Your task to perform on an android device: When is my next appointment? Image 0: 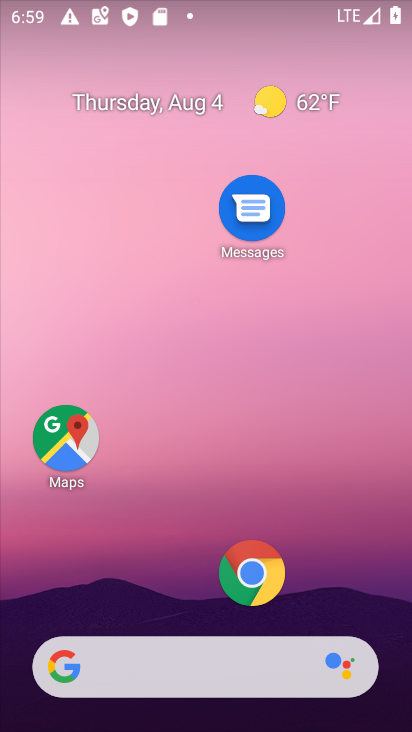
Step 0: press home button
Your task to perform on an android device: When is my next appointment? Image 1: 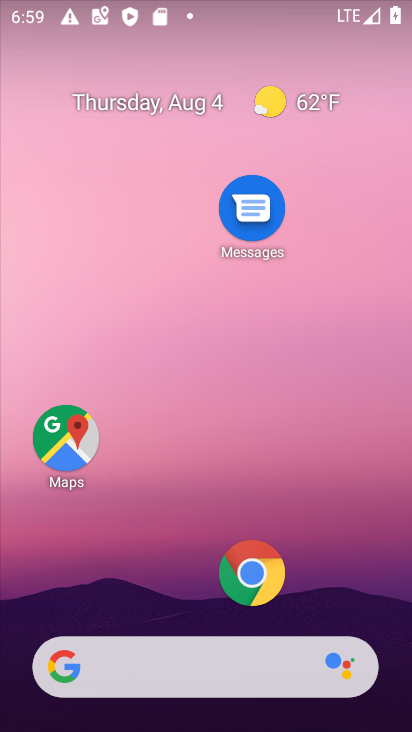
Step 1: drag from (176, 607) to (232, 149)
Your task to perform on an android device: When is my next appointment? Image 2: 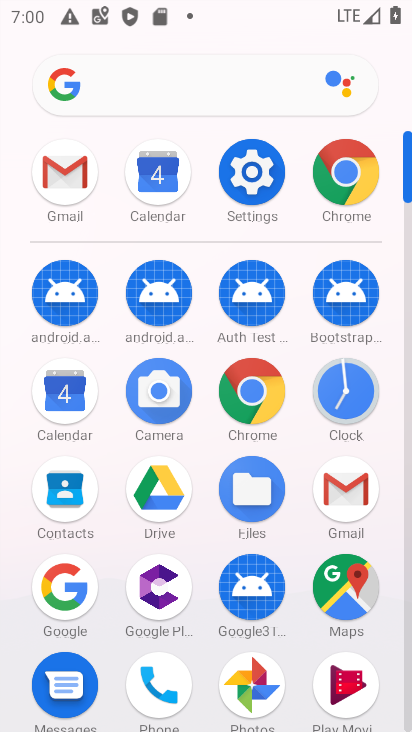
Step 2: click (157, 170)
Your task to perform on an android device: When is my next appointment? Image 3: 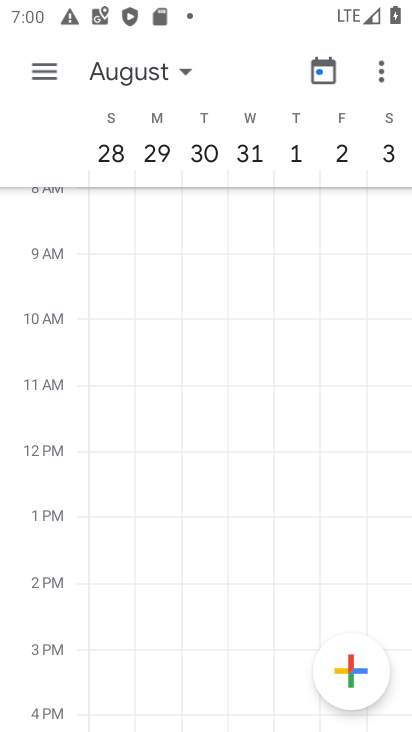
Step 3: click (190, 73)
Your task to perform on an android device: When is my next appointment? Image 4: 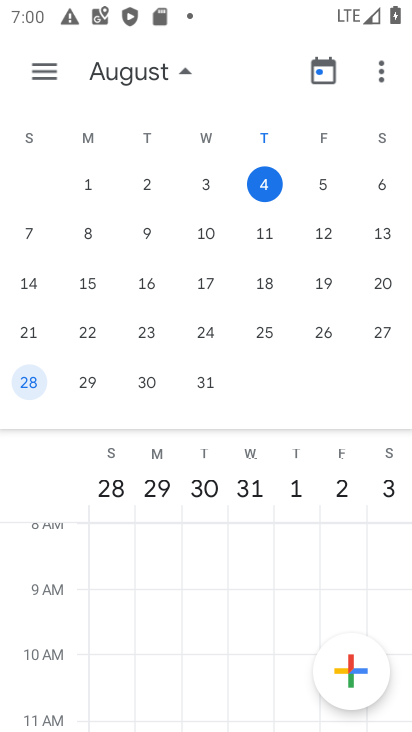
Step 4: click (31, 64)
Your task to perform on an android device: When is my next appointment? Image 5: 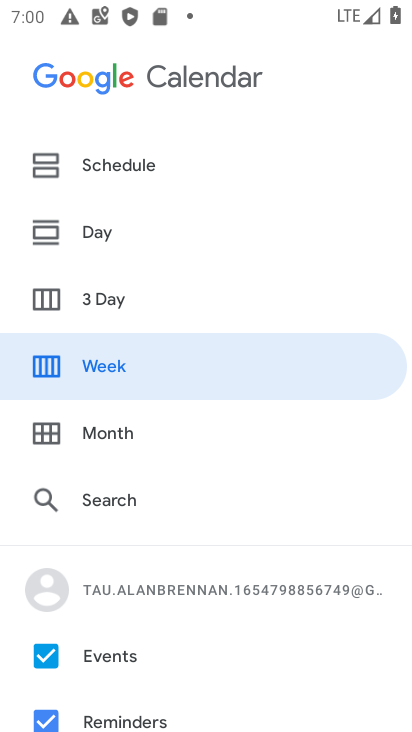
Step 5: click (98, 170)
Your task to perform on an android device: When is my next appointment? Image 6: 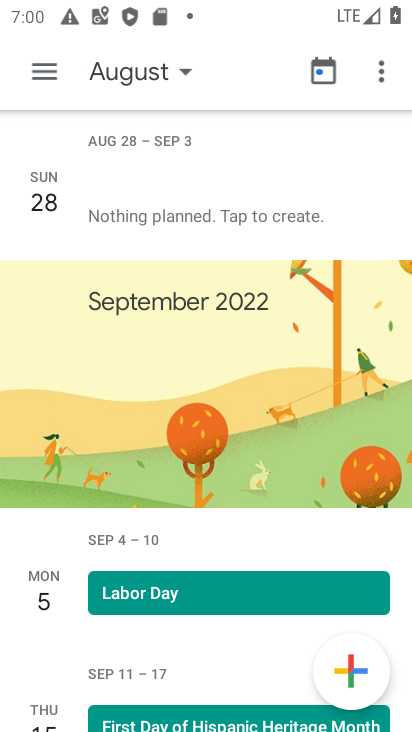
Step 6: task complete